Your task to perform on an android device: open sync settings in chrome Image 0: 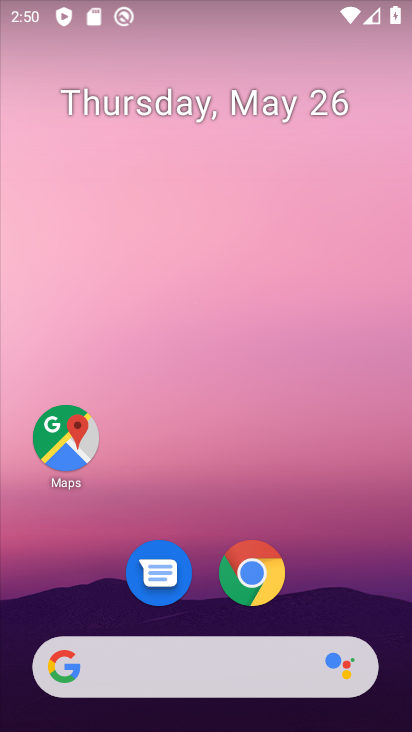
Step 0: click (240, 584)
Your task to perform on an android device: open sync settings in chrome Image 1: 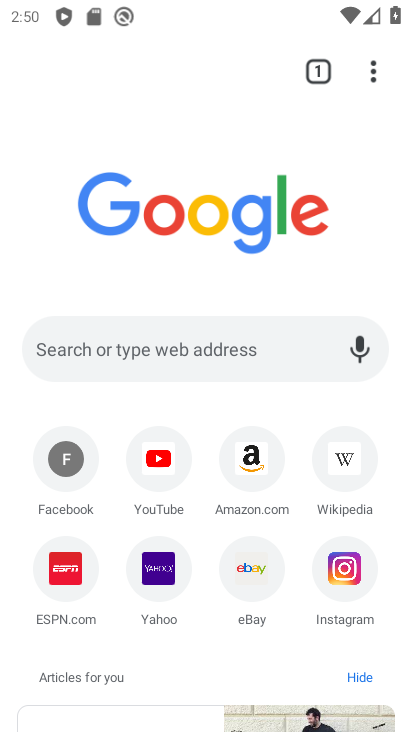
Step 1: click (377, 80)
Your task to perform on an android device: open sync settings in chrome Image 2: 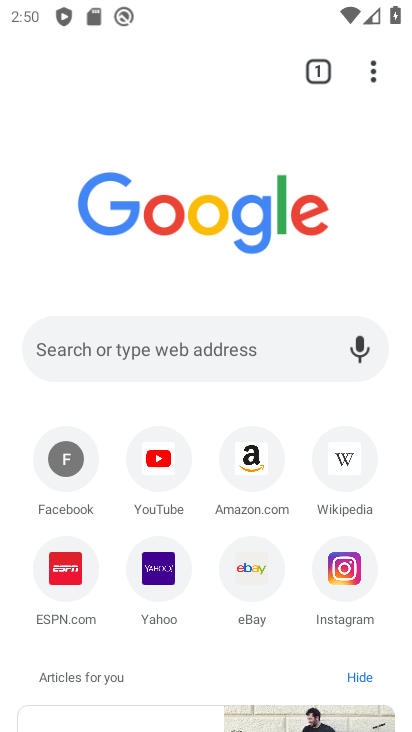
Step 2: drag from (383, 82) to (152, 604)
Your task to perform on an android device: open sync settings in chrome Image 3: 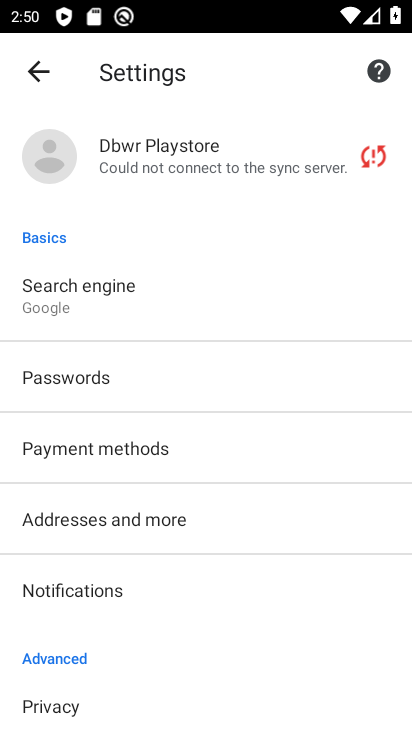
Step 3: click (208, 135)
Your task to perform on an android device: open sync settings in chrome Image 4: 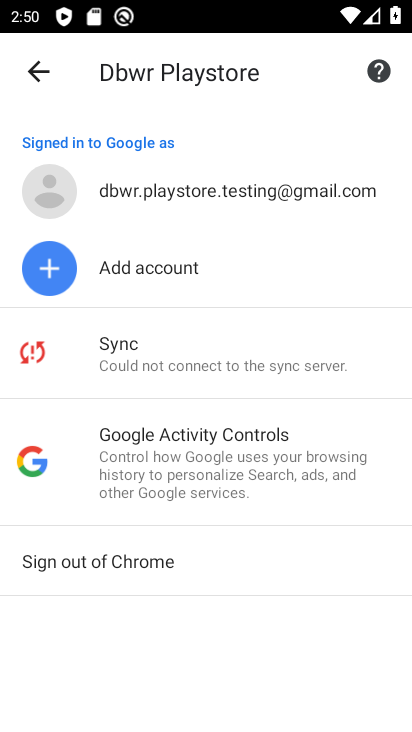
Step 4: task complete